Your task to perform on an android device: toggle wifi Image 0: 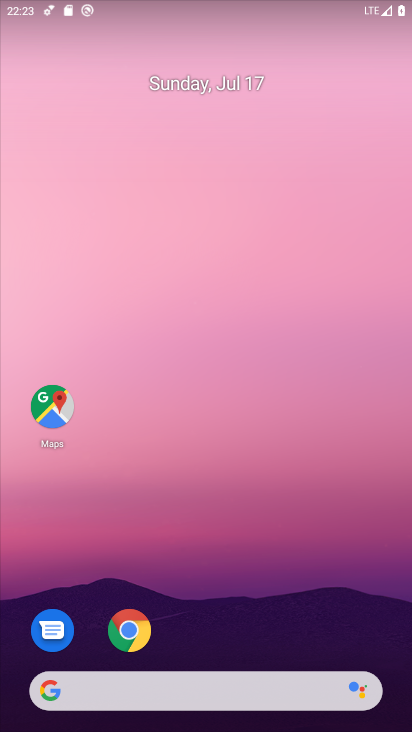
Step 0: drag from (215, 634) to (244, 213)
Your task to perform on an android device: toggle wifi Image 1: 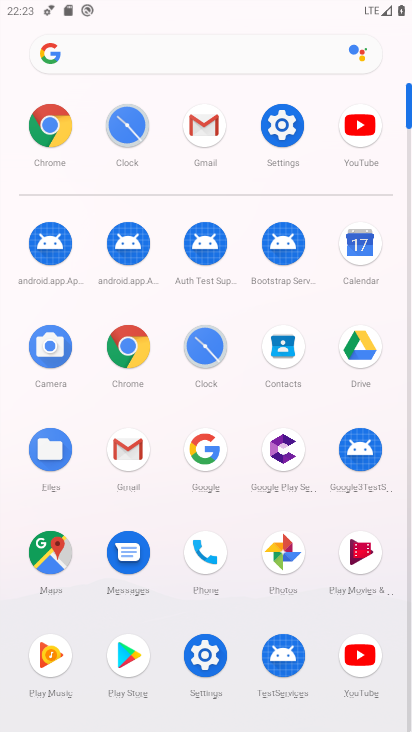
Step 1: click (211, 664)
Your task to perform on an android device: toggle wifi Image 2: 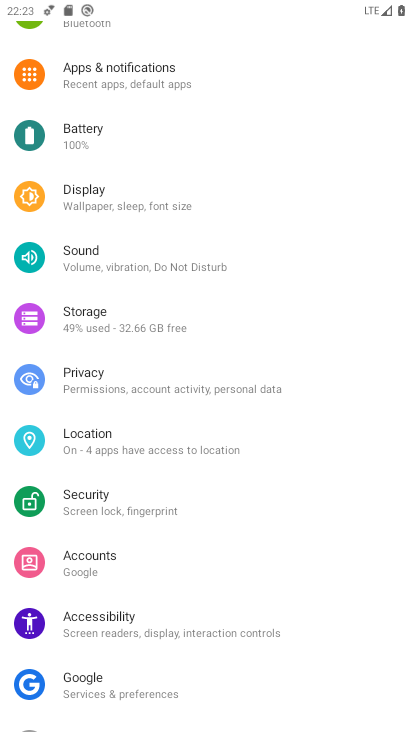
Step 2: drag from (139, 95) to (165, 644)
Your task to perform on an android device: toggle wifi Image 3: 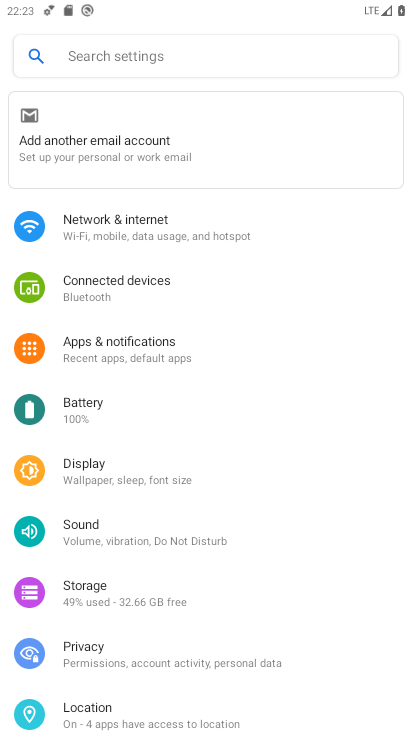
Step 3: click (129, 242)
Your task to perform on an android device: toggle wifi Image 4: 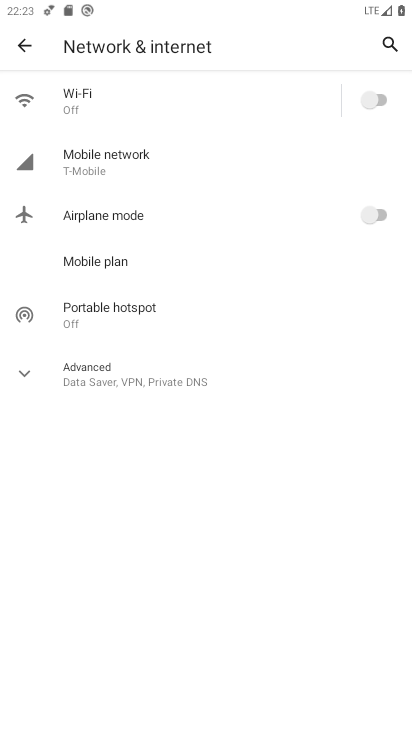
Step 4: click (400, 91)
Your task to perform on an android device: toggle wifi Image 5: 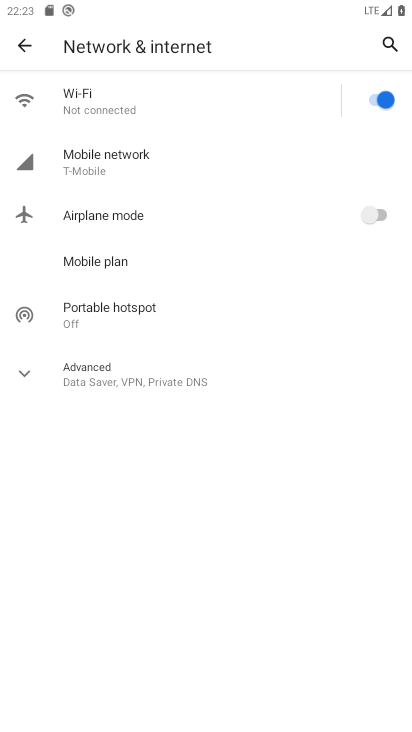
Step 5: task complete